Your task to perform on an android device: turn off wifi Image 0: 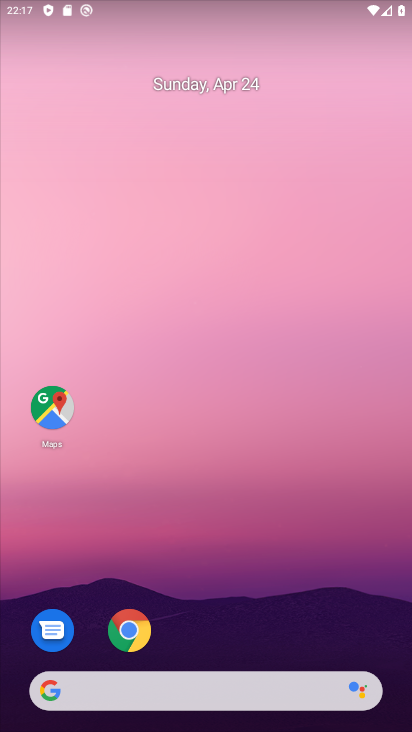
Step 0: drag from (234, 653) to (333, 78)
Your task to perform on an android device: turn off wifi Image 1: 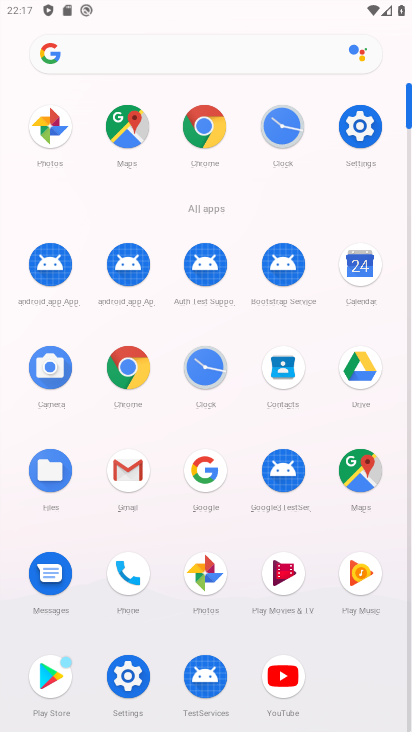
Step 1: click (128, 683)
Your task to perform on an android device: turn off wifi Image 2: 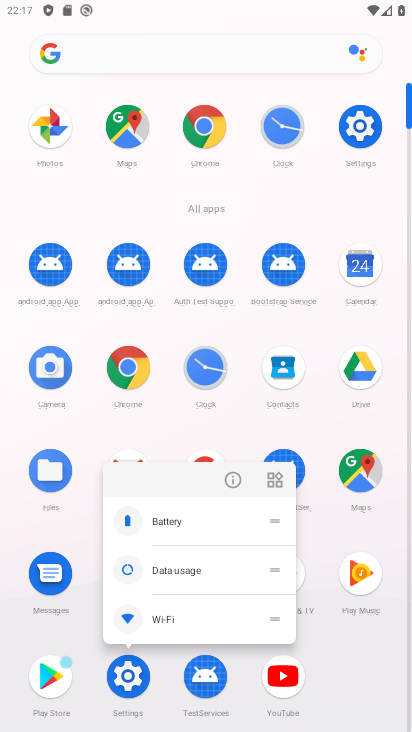
Step 2: click (125, 687)
Your task to perform on an android device: turn off wifi Image 3: 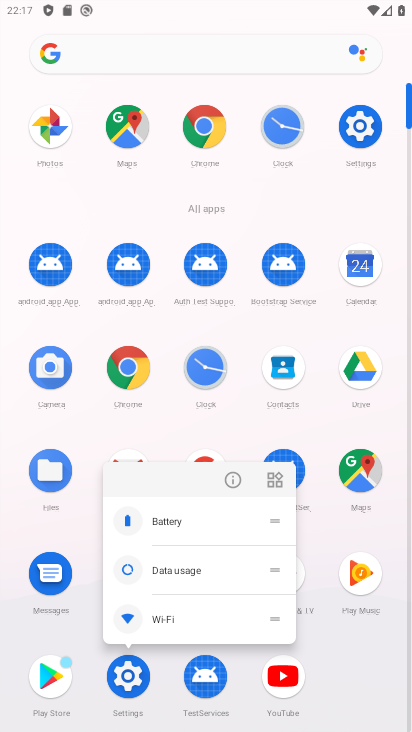
Step 3: click (140, 678)
Your task to perform on an android device: turn off wifi Image 4: 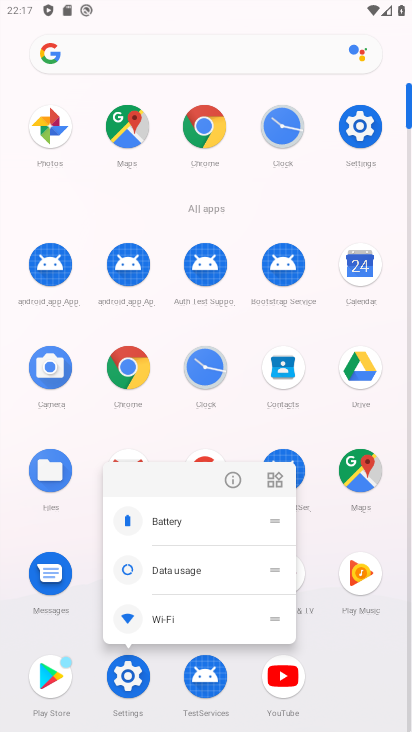
Step 4: click (136, 678)
Your task to perform on an android device: turn off wifi Image 5: 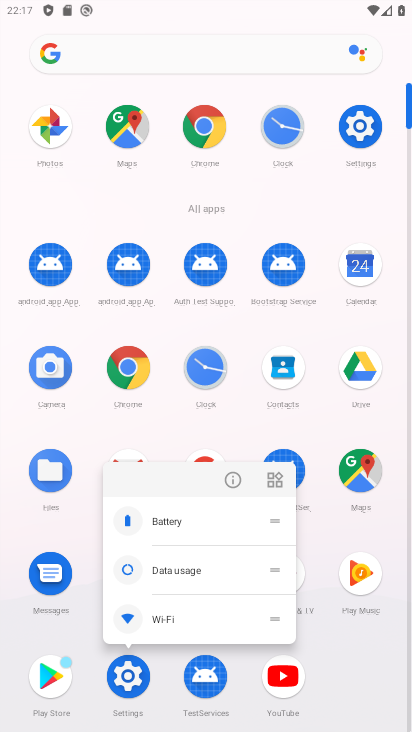
Step 5: click (132, 678)
Your task to perform on an android device: turn off wifi Image 6: 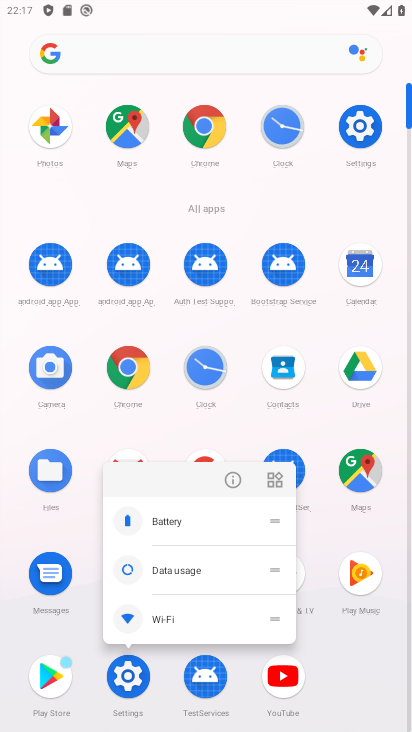
Step 6: click (124, 686)
Your task to perform on an android device: turn off wifi Image 7: 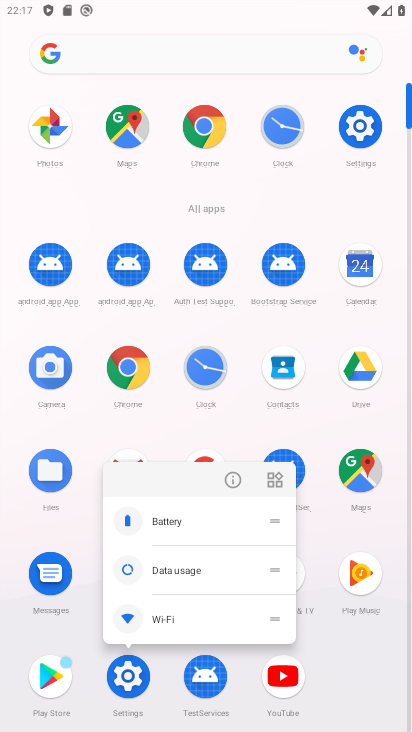
Step 7: click (153, 669)
Your task to perform on an android device: turn off wifi Image 8: 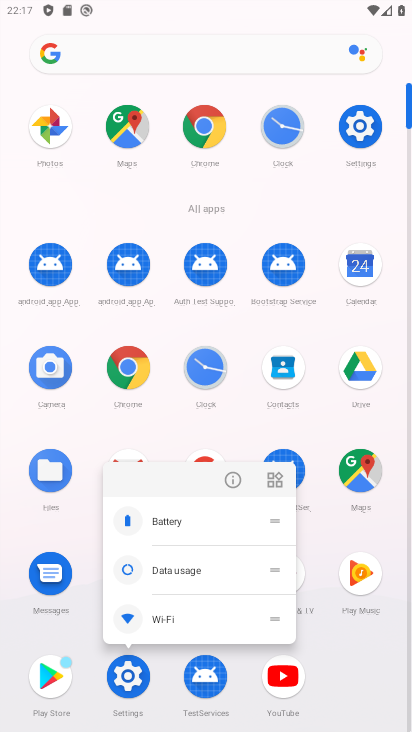
Step 8: click (124, 673)
Your task to perform on an android device: turn off wifi Image 9: 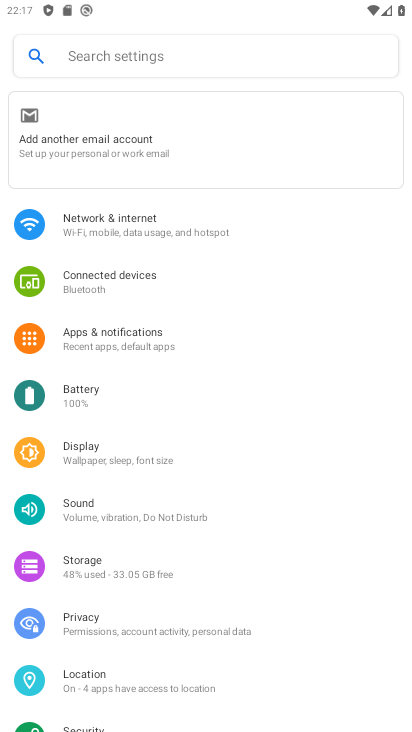
Step 9: click (151, 238)
Your task to perform on an android device: turn off wifi Image 10: 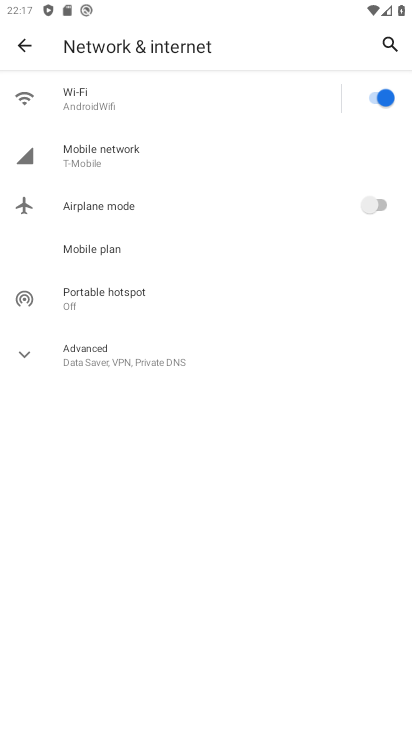
Step 10: click (372, 93)
Your task to perform on an android device: turn off wifi Image 11: 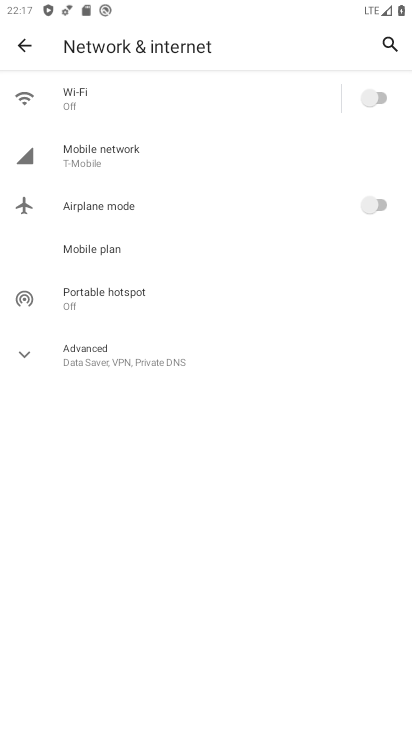
Step 11: task complete